Your task to perform on an android device: Turn off the flashlight Image 0: 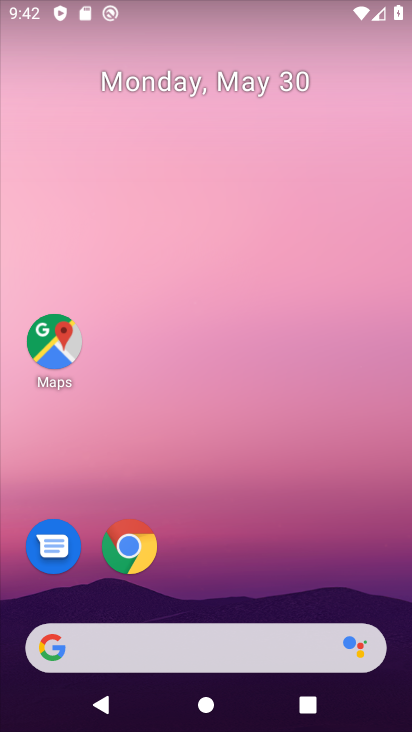
Step 0: drag from (348, 20) to (342, 674)
Your task to perform on an android device: Turn off the flashlight Image 1: 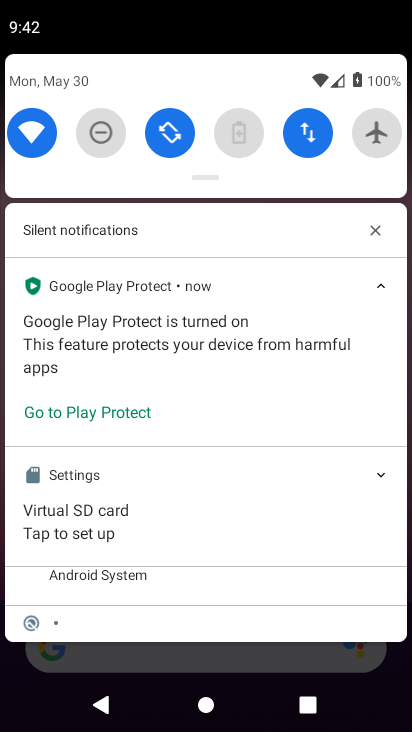
Step 1: task complete